Your task to perform on an android device: change notification settings in the gmail app Image 0: 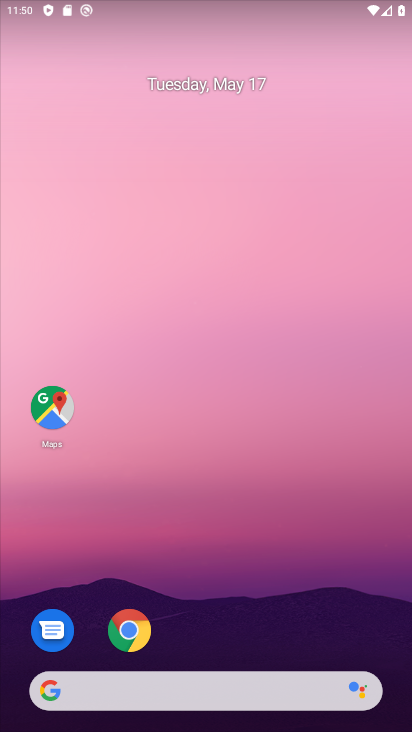
Step 0: drag from (235, 575) to (268, 157)
Your task to perform on an android device: change notification settings in the gmail app Image 1: 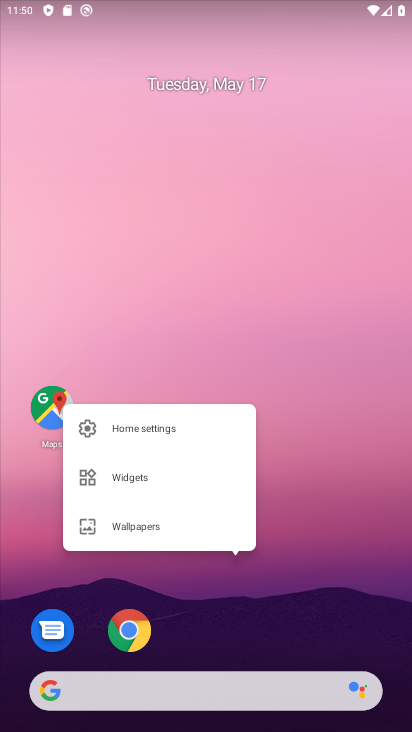
Step 1: click (363, 534)
Your task to perform on an android device: change notification settings in the gmail app Image 2: 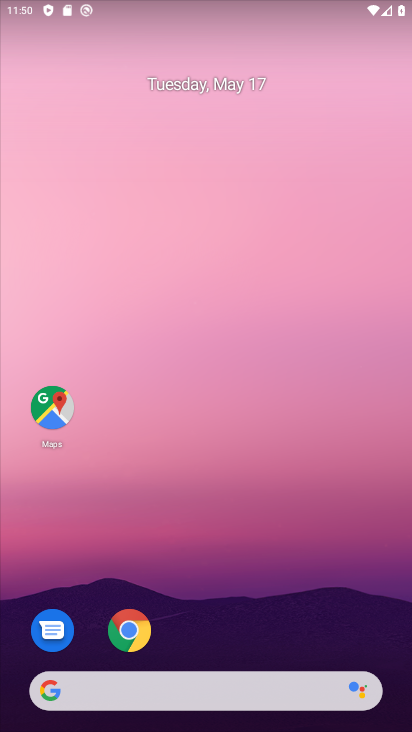
Step 2: drag from (355, 620) to (346, 133)
Your task to perform on an android device: change notification settings in the gmail app Image 3: 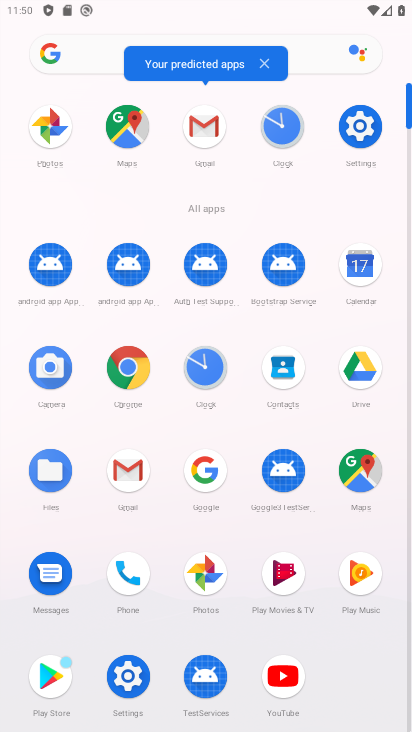
Step 3: click (126, 474)
Your task to perform on an android device: change notification settings in the gmail app Image 4: 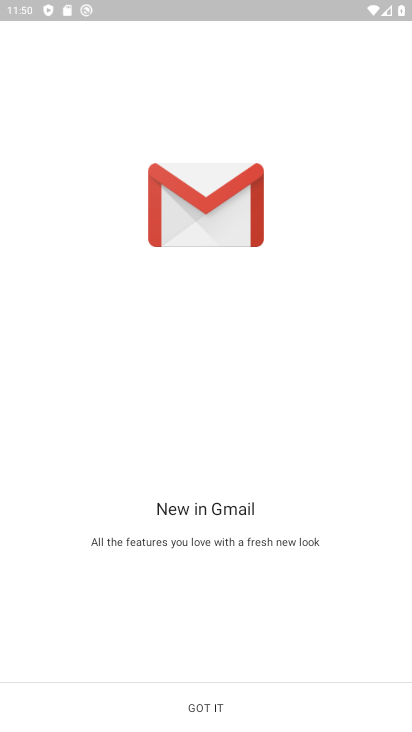
Step 4: click (189, 699)
Your task to perform on an android device: change notification settings in the gmail app Image 5: 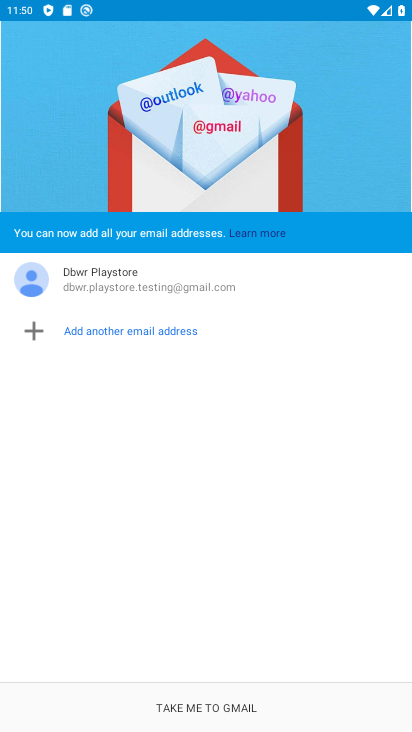
Step 5: click (185, 706)
Your task to perform on an android device: change notification settings in the gmail app Image 6: 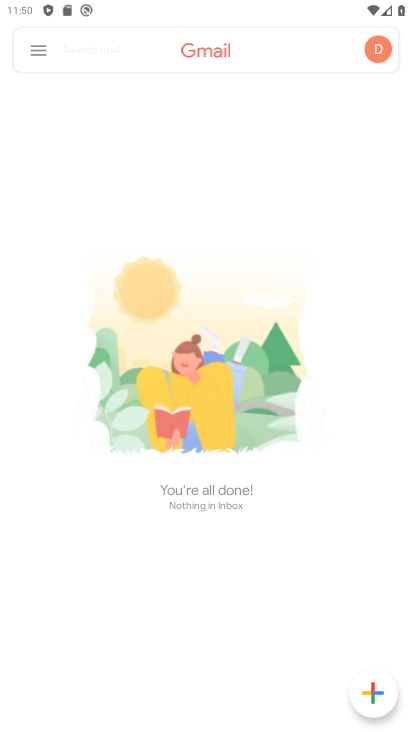
Step 6: click (30, 49)
Your task to perform on an android device: change notification settings in the gmail app Image 7: 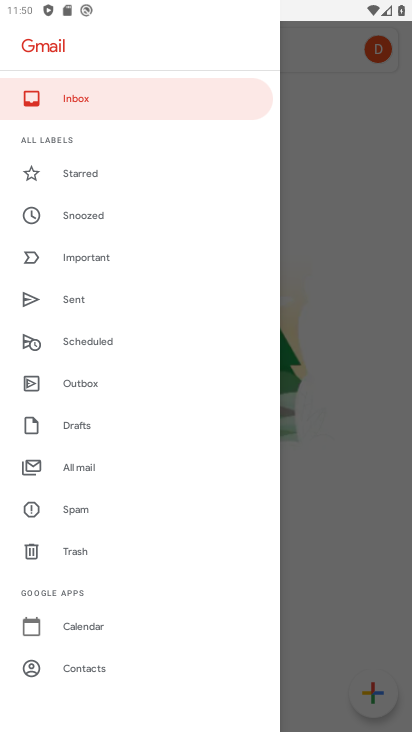
Step 7: drag from (152, 529) to (146, 78)
Your task to perform on an android device: change notification settings in the gmail app Image 8: 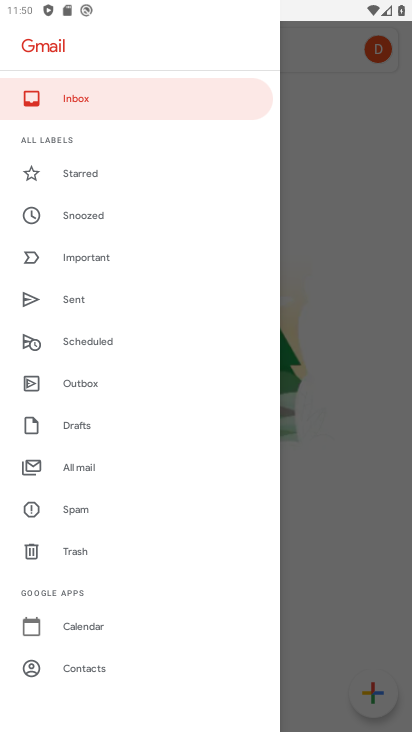
Step 8: drag from (184, 578) to (180, 172)
Your task to perform on an android device: change notification settings in the gmail app Image 9: 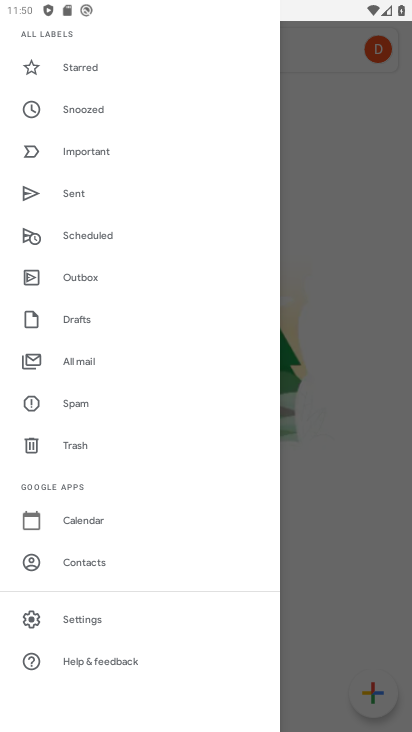
Step 9: click (111, 613)
Your task to perform on an android device: change notification settings in the gmail app Image 10: 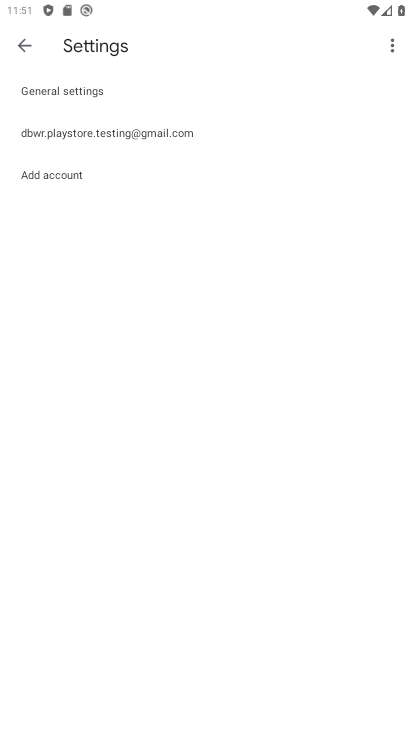
Step 10: press back button
Your task to perform on an android device: change notification settings in the gmail app Image 11: 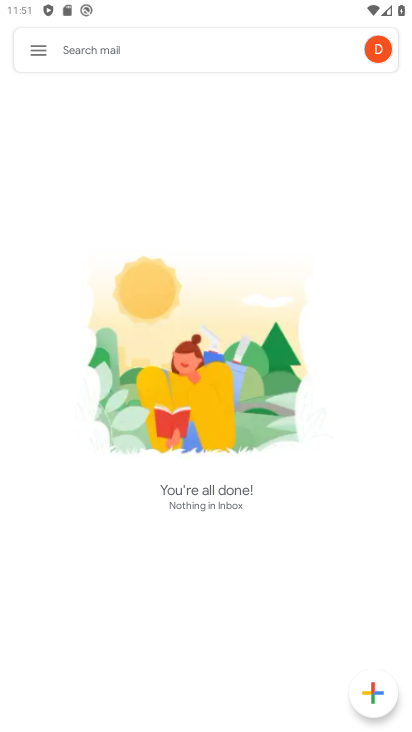
Step 11: click (38, 46)
Your task to perform on an android device: change notification settings in the gmail app Image 12: 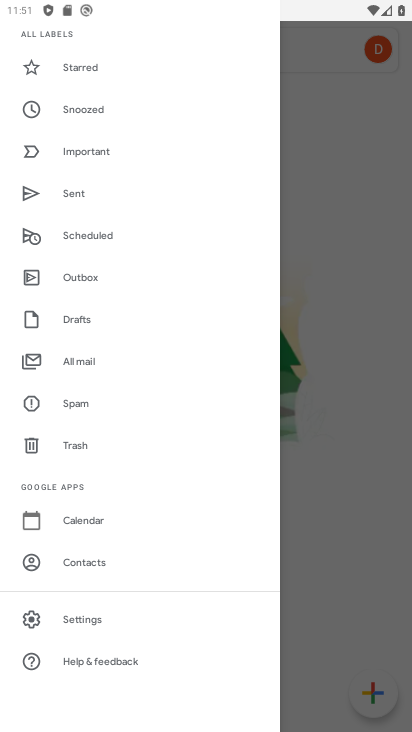
Step 12: task complete